Your task to perform on an android device: turn on bluetooth scan Image 0: 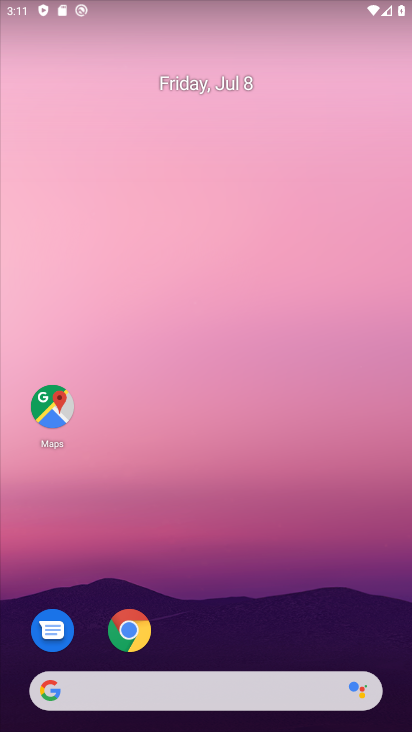
Step 0: drag from (230, 633) to (247, 96)
Your task to perform on an android device: turn on bluetooth scan Image 1: 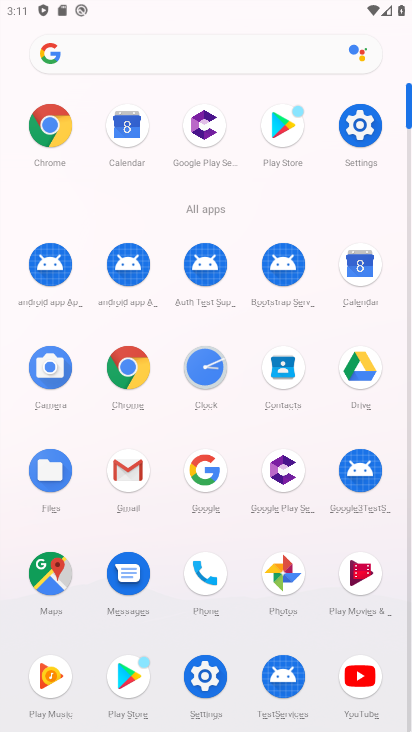
Step 1: click (361, 123)
Your task to perform on an android device: turn on bluetooth scan Image 2: 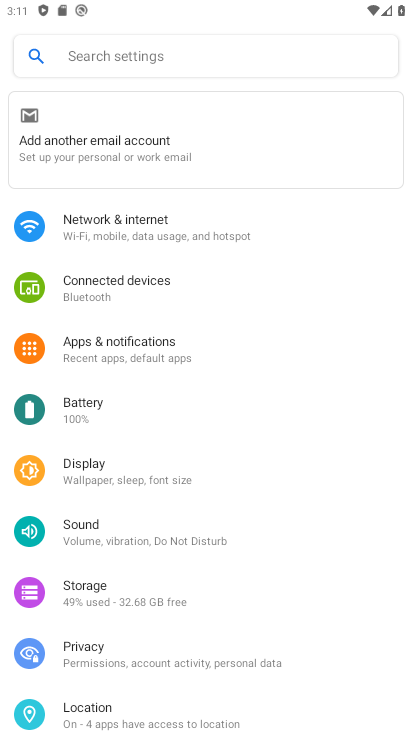
Step 2: drag from (123, 504) to (191, 390)
Your task to perform on an android device: turn on bluetooth scan Image 3: 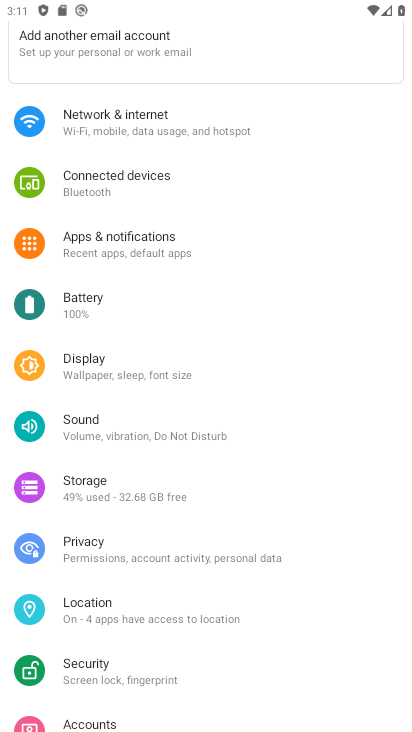
Step 3: click (114, 614)
Your task to perform on an android device: turn on bluetooth scan Image 4: 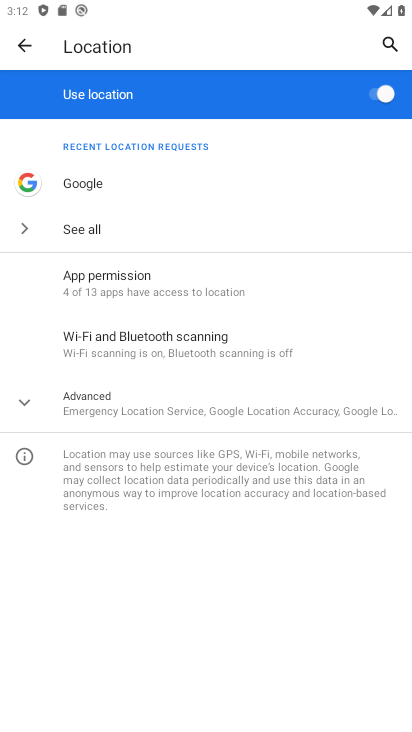
Step 4: click (163, 346)
Your task to perform on an android device: turn on bluetooth scan Image 5: 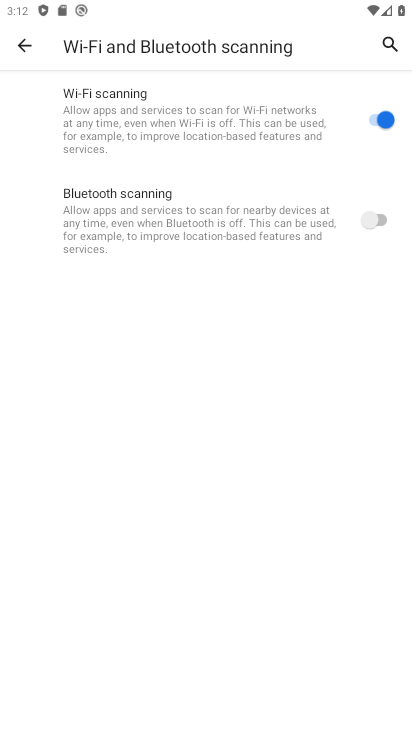
Step 5: click (374, 218)
Your task to perform on an android device: turn on bluetooth scan Image 6: 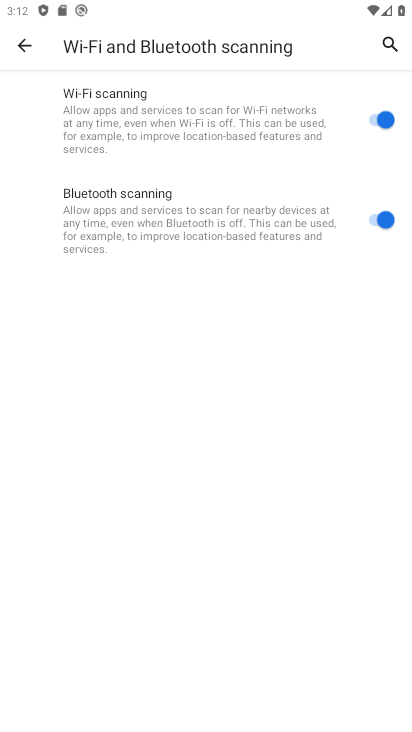
Step 6: task complete